Your task to perform on an android device: set default search engine in the chrome app Image 0: 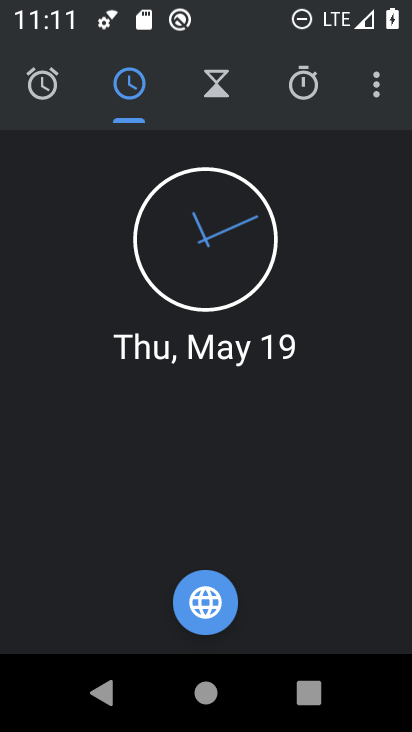
Step 0: press home button
Your task to perform on an android device: set default search engine in the chrome app Image 1: 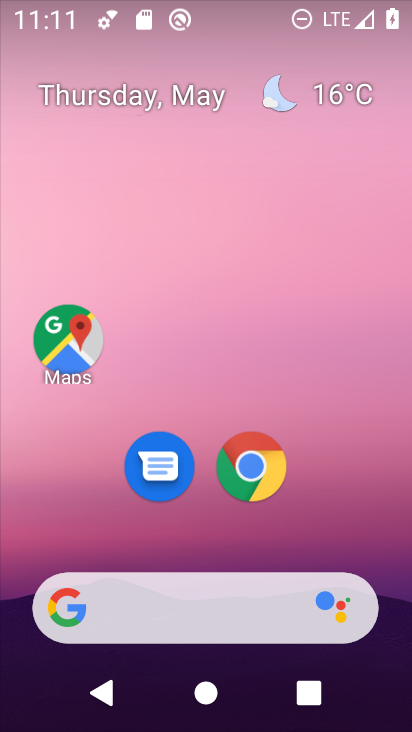
Step 1: click (257, 479)
Your task to perform on an android device: set default search engine in the chrome app Image 2: 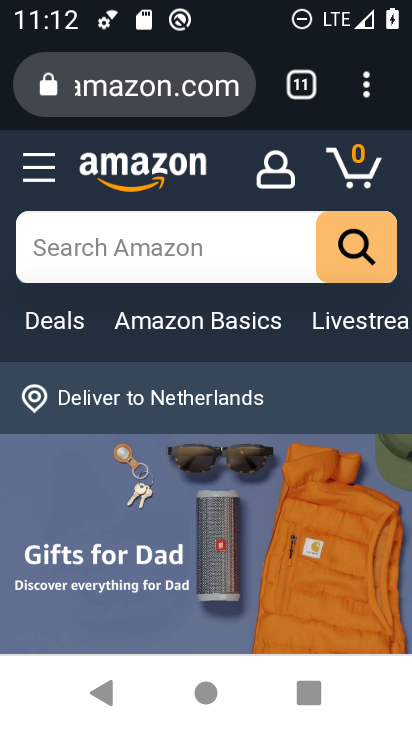
Step 2: click (378, 83)
Your task to perform on an android device: set default search engine in the chrome app Image 3: 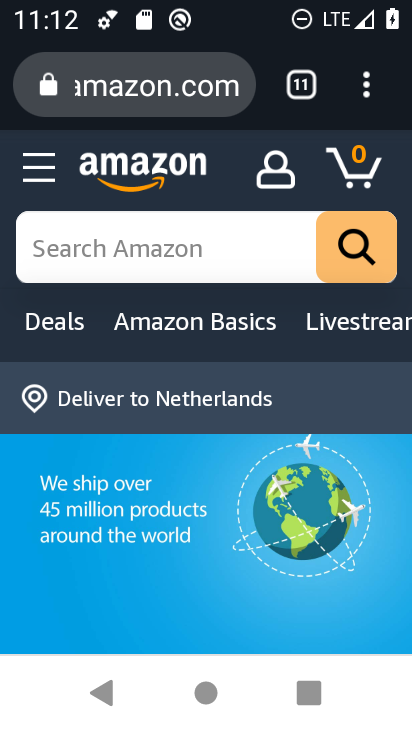
Step 3: click (372, 83)
Your task to perform on an android device: set default search engine in the chrome app Image 4: 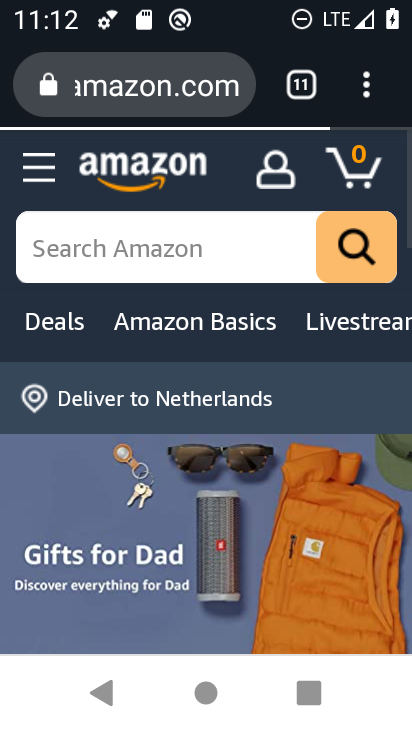
Step 4: click (353, 78)
Your task to perform on an android device: set default search engine in the chrome app Image 5: 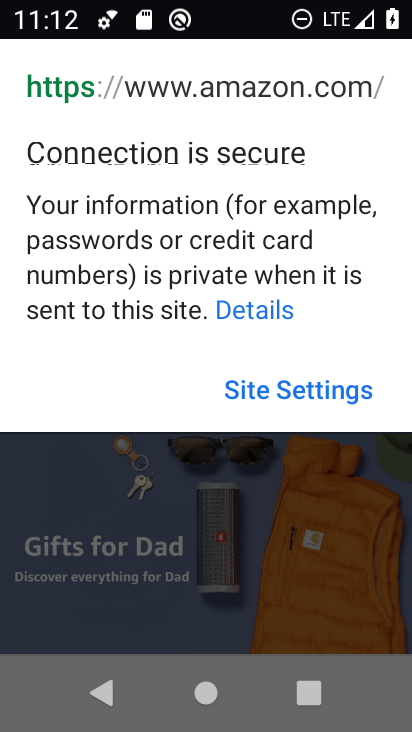
Step 5: press back button
Your task to perform on an android device: set default search engine in the chrome app Image 6: 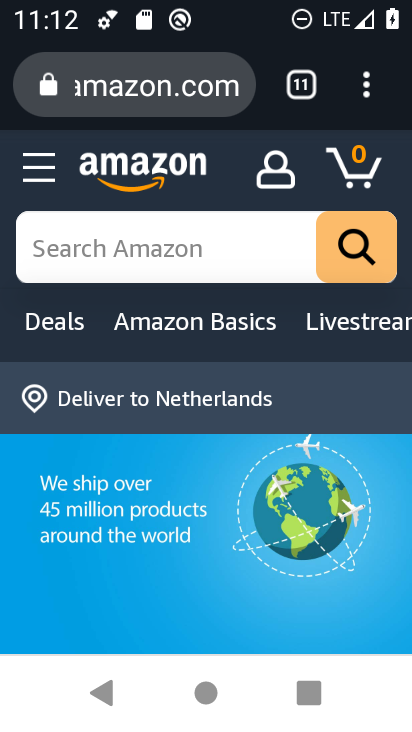
Step 6: click (375, 93)
Your task to perform on an android device: set default search engine in the chrome app Image 7: 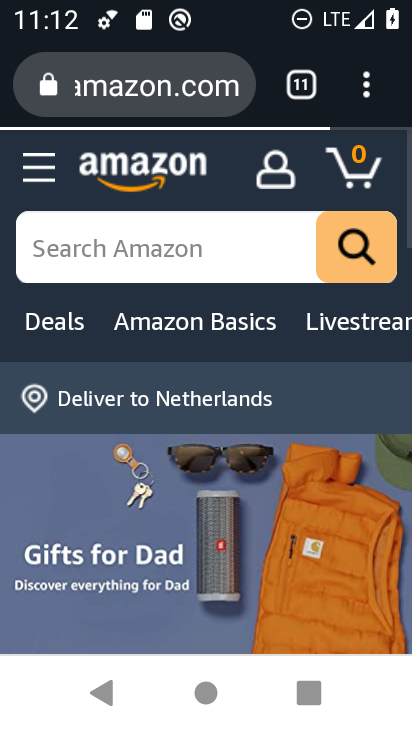
Step 7: click (367, 76)
Your task to perform on an android device: set default search engine in the chrome app Image 8: 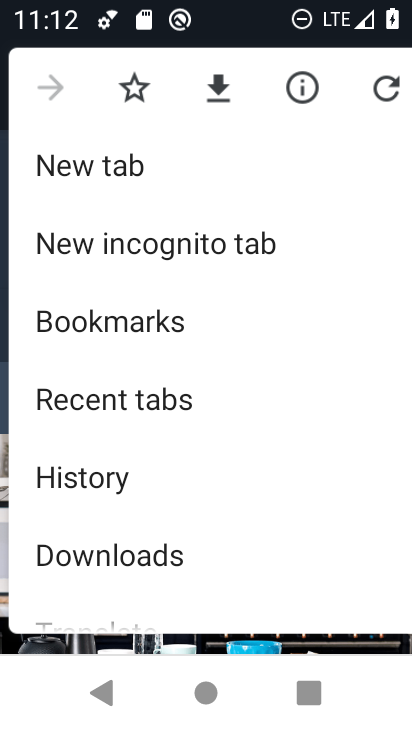
Step 8: drag from (210, 538) to (313, 222)
Your task to perform on an android device: set default search engine in the chrome app Image 9: 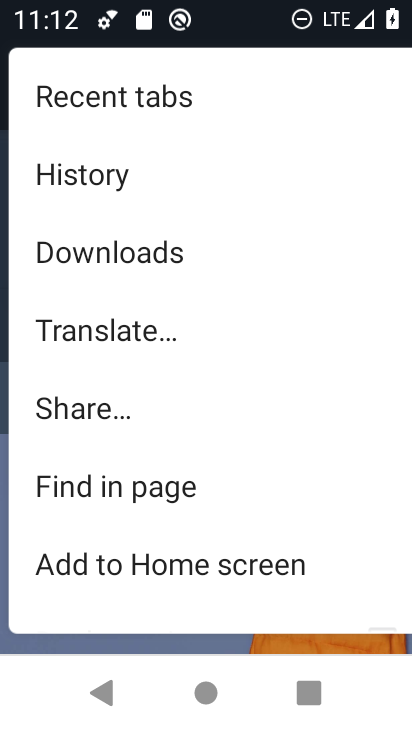
Step 9: drag from (216, 430) to (277, 223)
Your task to perform on an android device: set default search engine in the chrome app Image 10: 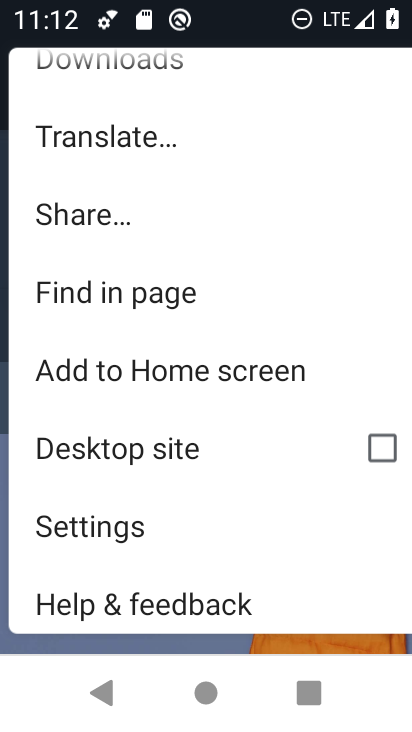
Step 10: click (122, 514)
Your task to perform on an android device: set default search engine in the chrome app Image 11: 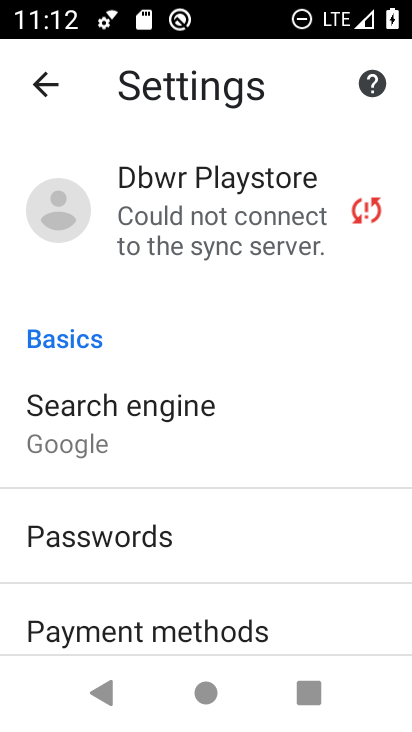
Step 11: click (172, 430)
Your task to perform on an android device: set default search engine in the chrome app Image 12: 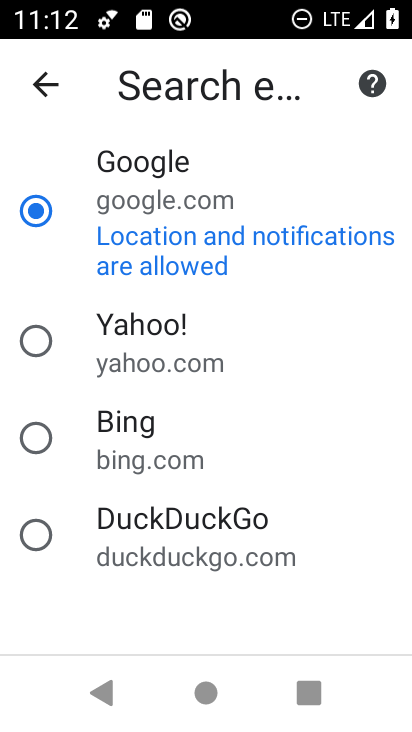
Step 12: click (120, 446)
Your task to perform on an android device: set default search engine in the chrome app Image 13: 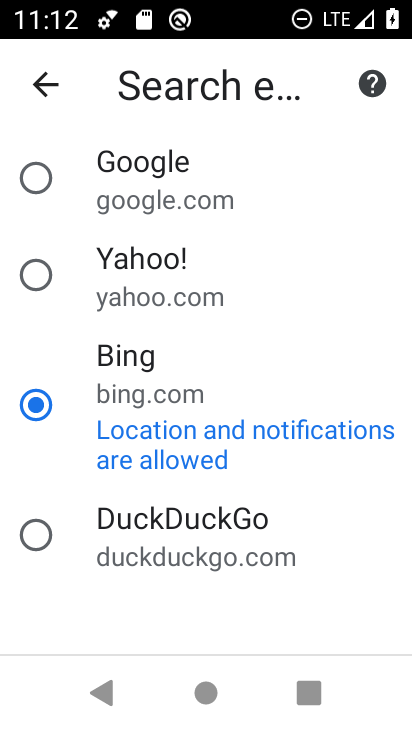
Step 13: task complete